Your task to perform on an android device: change notification settings in the gmail app Image 0: 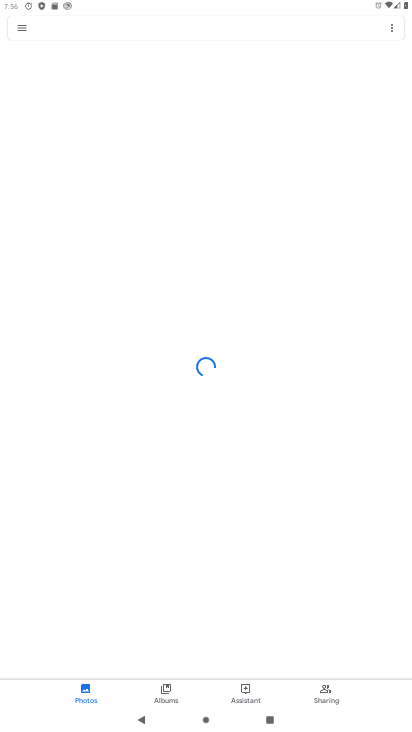
Step 0: press home button
Your task to perform on an android device: change notification settings in the gmail app Image 1: 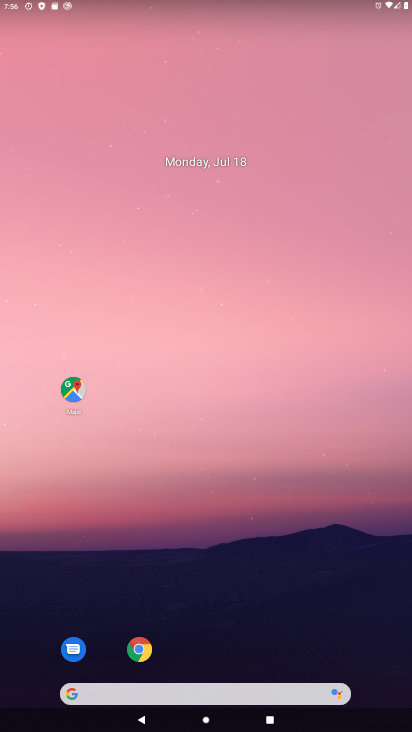
Step 1: drag from (294, 650) to (211, 90)
Your task to perform on an android device: change notification settings in the gmail app Image 2: 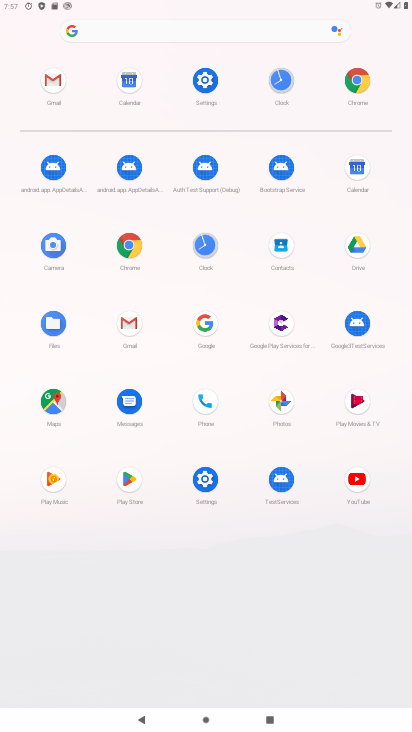
Step 2: click (203, 324)
Your task to perform on an android device: change notification settings in the gmail app Image 3: 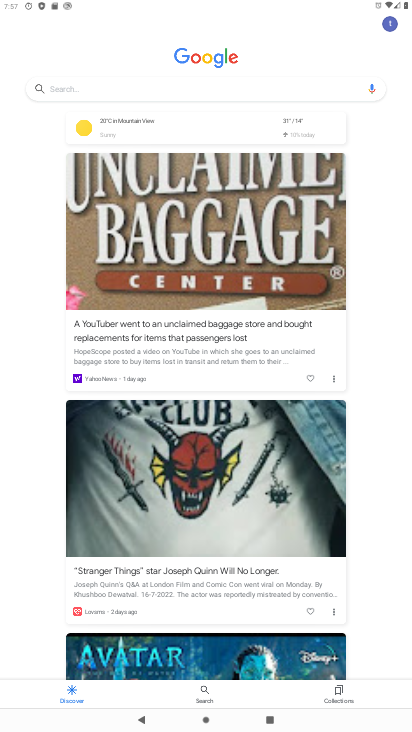
Step 3: press home button
Your task to perform on an android device: change notification settings in the gmail app Image 4: 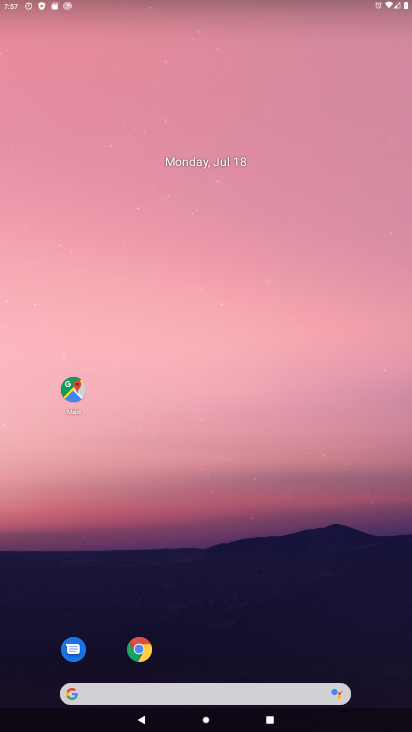
Step 4: drag from (337, 641) to (237, 68)
Your task to perform on an android device: change notification settings in the gmail app Image 5: 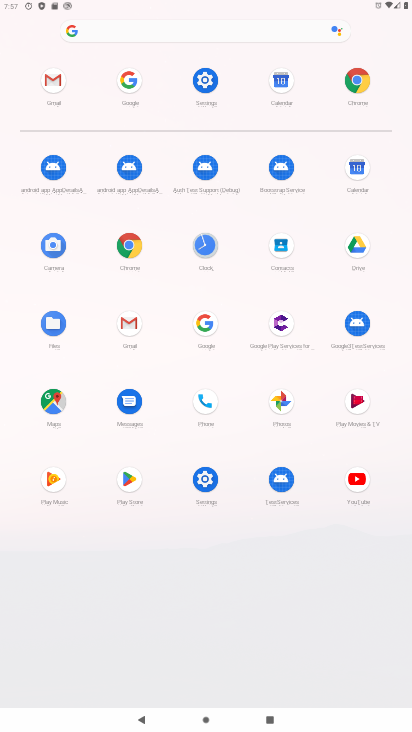
Step 5: click (48, 81)
Your task to perform on an android device: change notification settings in the gmail app Image 6: 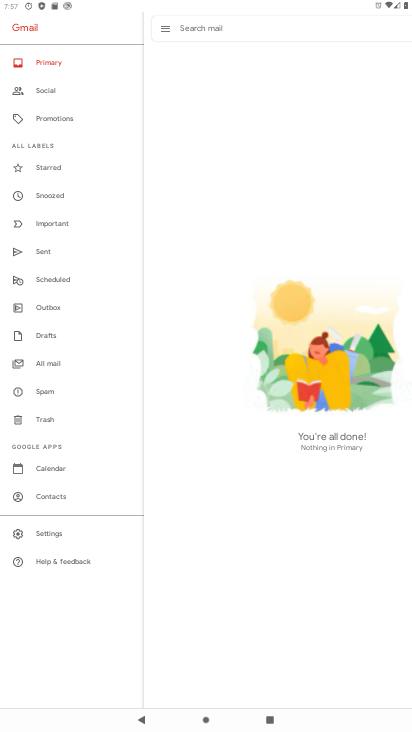
Step 6: click (50, 529)
Your task to perform on an android device: change notification settings in the gmail app Image 7: 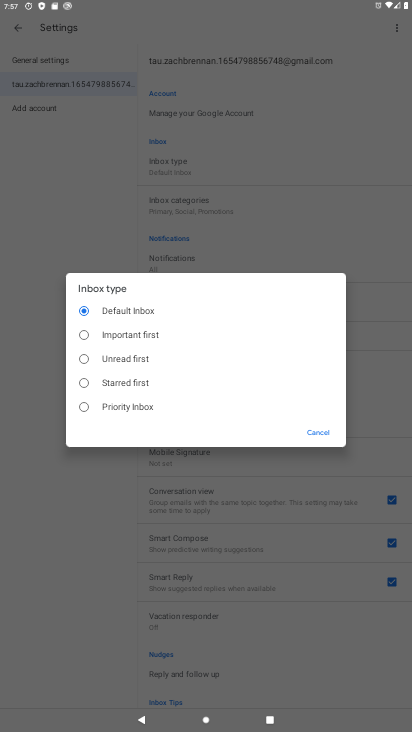
Step 7: click (316, 433)
Your task to perform on an android device: change notification settings in the gmail app Image 8: 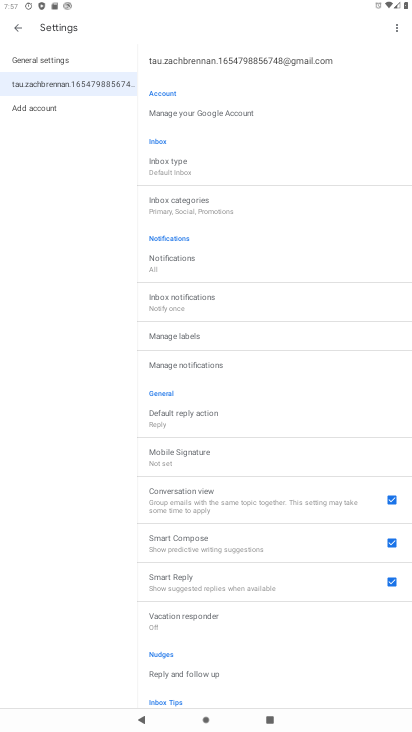
Step 8: click (183, 361)
Your task to perform on an android device: change notification settings in the gmail app Image 9: 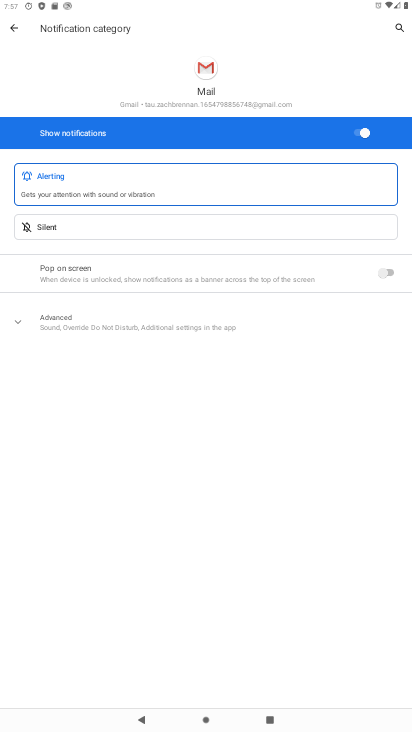
Step 9: click (353, 139)
Your task to perform on an android device: change notification settings in the gmail app Image 10: 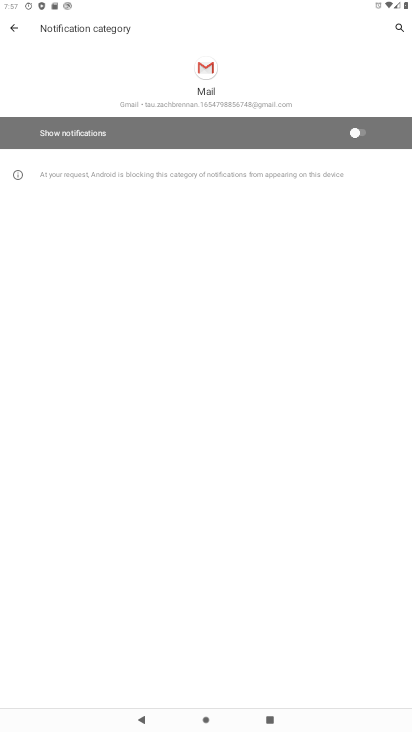
Step 10: task complete